Your task to perform on an android device: change your default location settings in chrome Image 0: 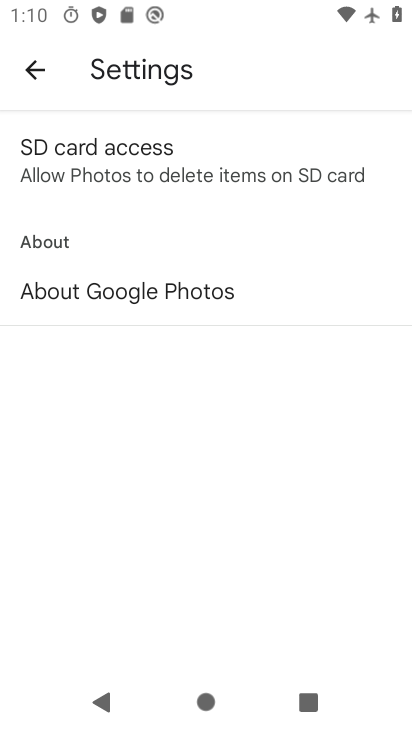
Step 0: press home button
Your task to perform on an android device: change your default location settings in chrome Image 1: 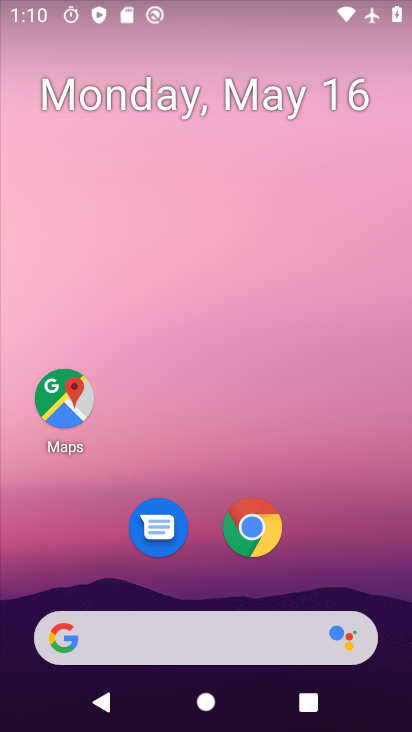
Step 1: drag from (164, 630) to (281, 198)
Your task to perform on an android device: change your default location settings in chrome Image 2: 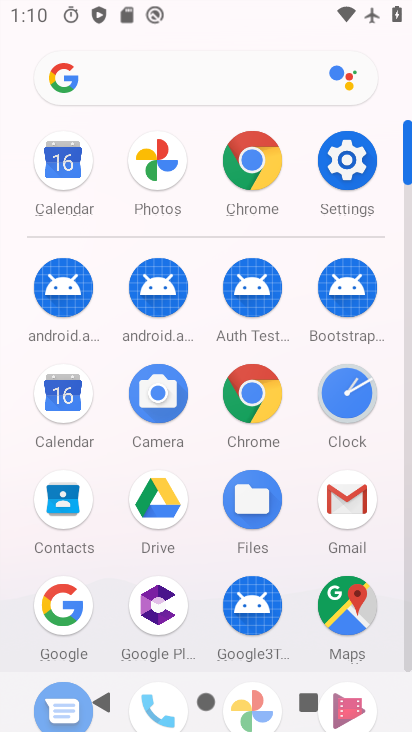
Step 2: click (249, 178)
Your task to perform on an android device: change your default location settings in chrome Image 3: 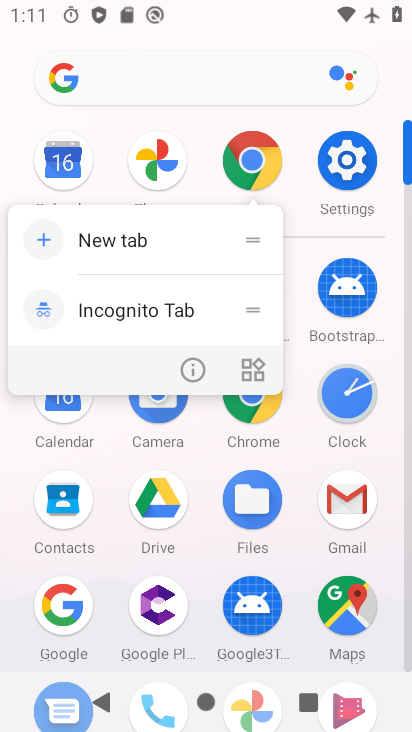
Step 3: click (254, 173)
Your task to perform on an android device: change your default location settings in chrome Image 4: 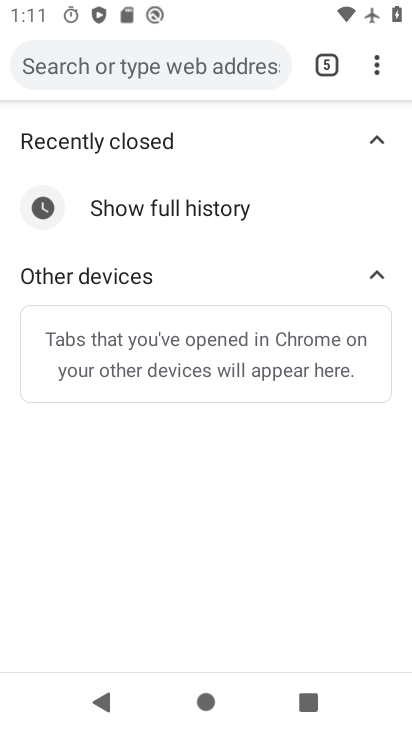
Step 4: drag from (379, 76) to (212, 558)
Your task to perform on an android device: change your default location settings in chrome Image 5: 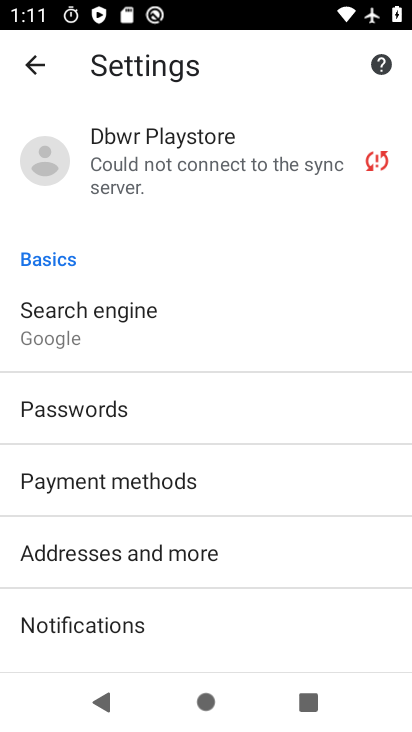
Step 5: drag from (215, 583) to (359, 146)
Your task to perform on an android device: change your default location settings in chrome Image 6: 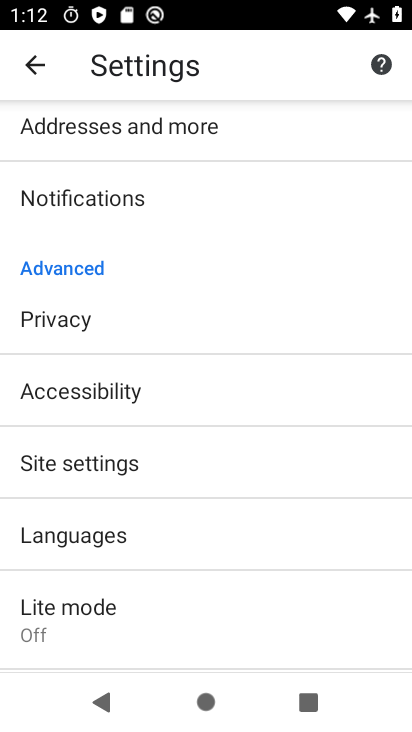
Step 6: click (97, 456)
Your task to perform on an android device: change your default location settings in chrome Image 7: 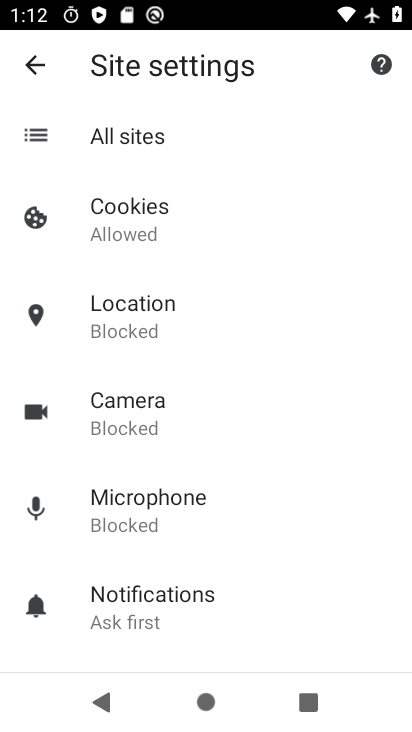
Step 7: click (155, 317)
Your task to perform on an android device: change your default location settings in chrome Image 8: 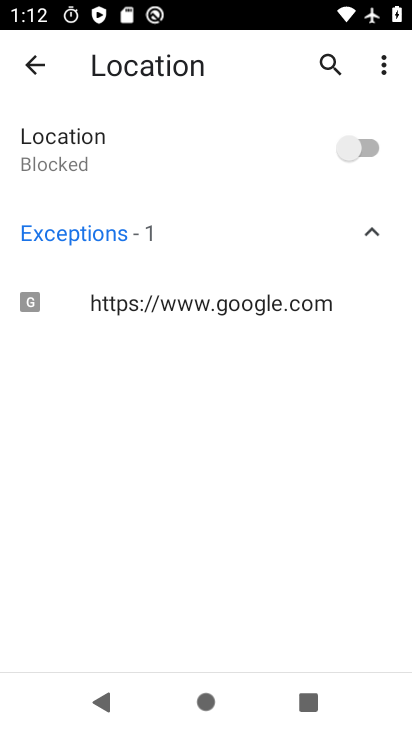
Step 8: click (370, 148)
Your task to perform on an android device: change your default location settings in chrome Image 9: 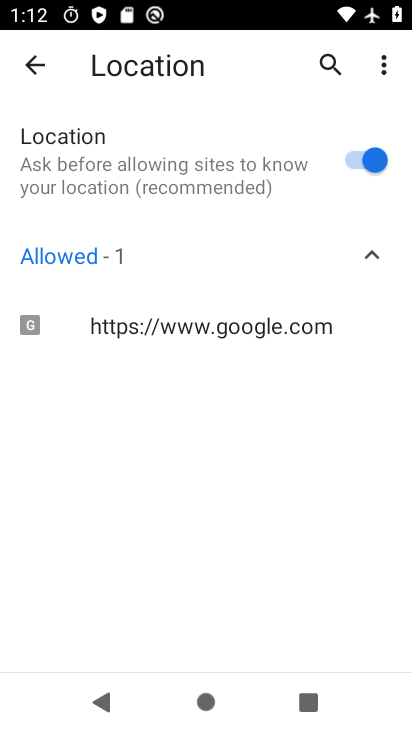
Step 9: task complete